Your task to perform on an android device: open chrome and create a bookmark for the current page Image 0: 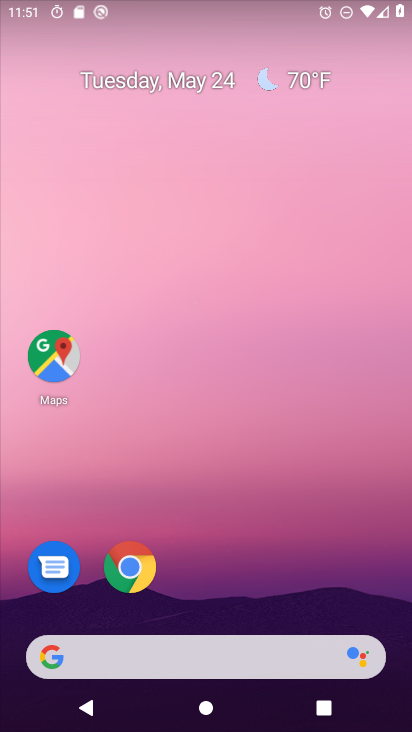
Step 0: click (118, 569)
Your task to perform on an android device: open chrome and create a bookmark for the current page Image 1: 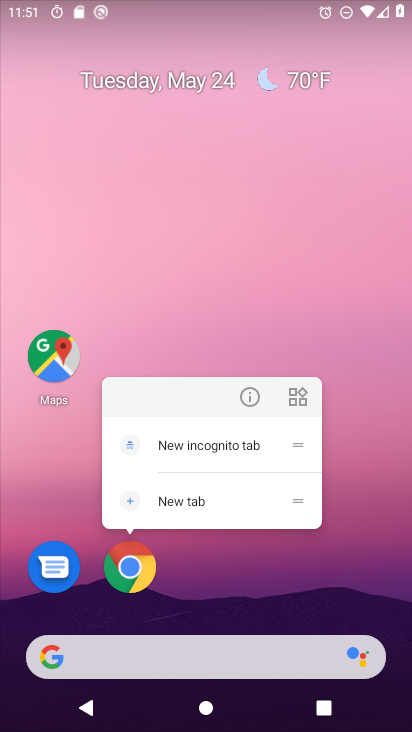
Step 1: click (122, 566)
Your task to perform on an android device: open chrome and create a bookmark for the current page Image 2: 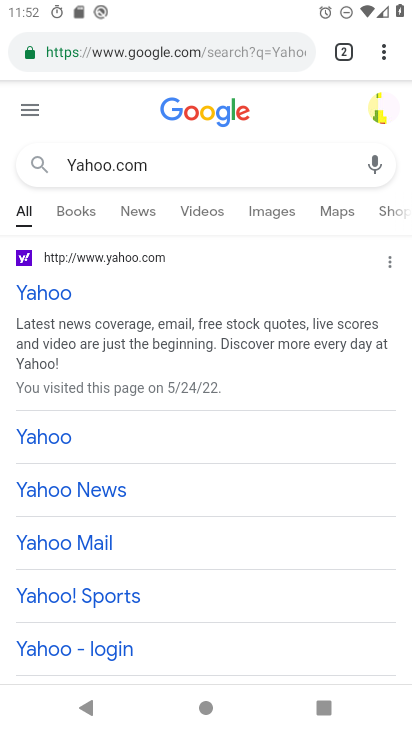
Step 2: click (385, 50)
Your task to perform on an android device: open chrome and create a bookmark for the current page Image 3: 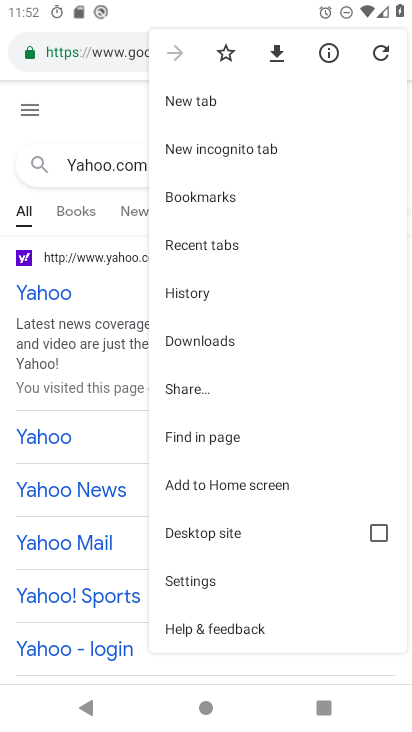
Step 3: click (220, 53)
Your task to perform on an android device: open chrome and create a bookmark for the current page Image 4: 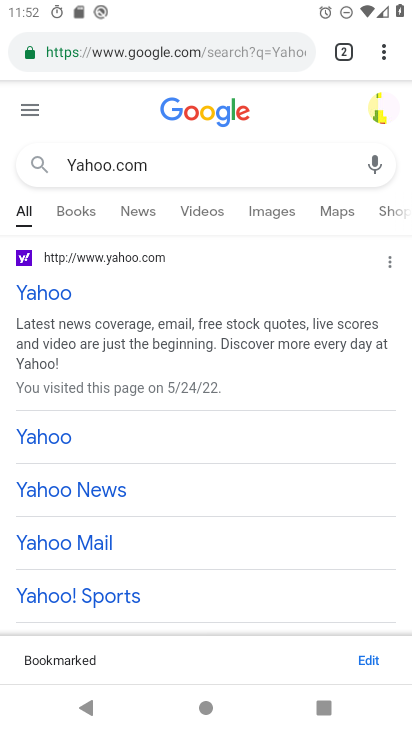
Step 4: task complete